Your task to perform on an android device: turn notification dots on Image 0: 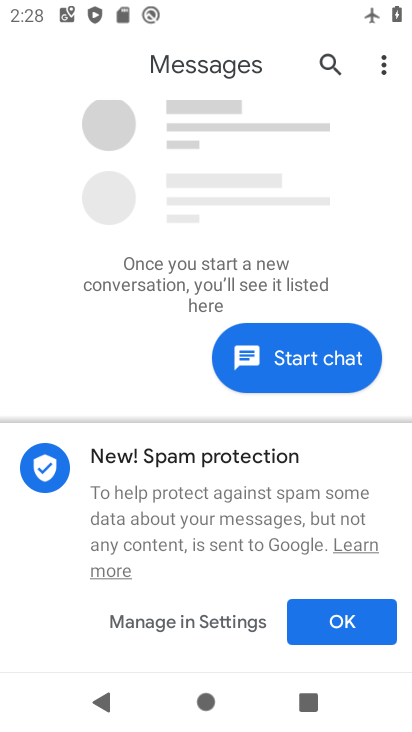
Step 0: press back button
Your task to perform on an android device: turn notification dots on Image 1: 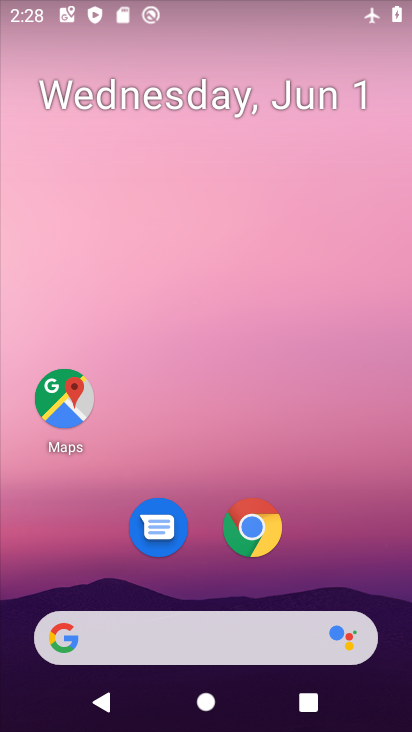
Step 1: drag from (332, 565) to (299, 277)
Your task to perform on an android device: turn notification dots on Image 2: 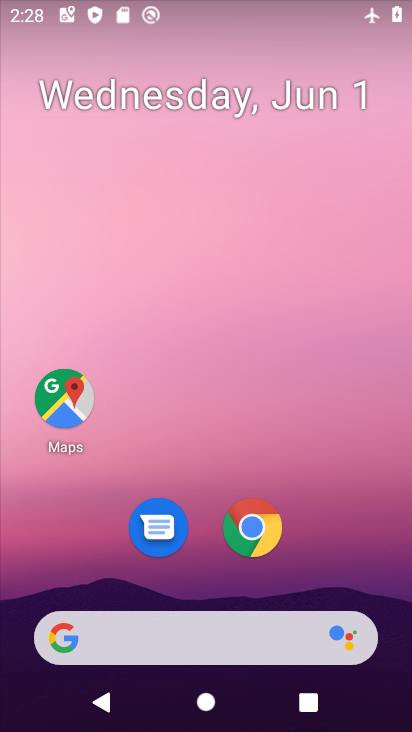
Step 2: drag from (323, 555) to (249, 124)
Your task to perform on an android device: turn notification dots on Image 3: 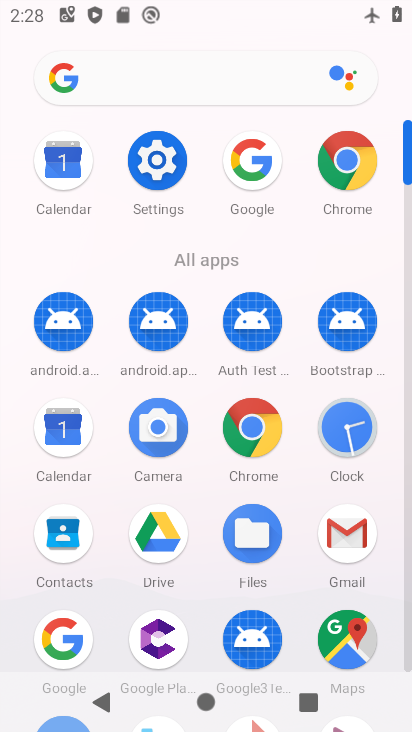
Step 3: click (155, 160)
Your task to perform on an android device: turn notification dots on Image 4: 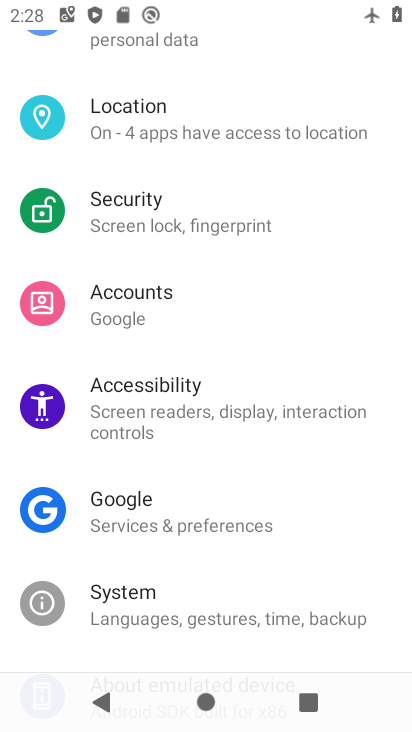
Step 4: drag from (209, 188) to (207, 281)
Your task to perform on an android device: turn notification dots on Image 5: 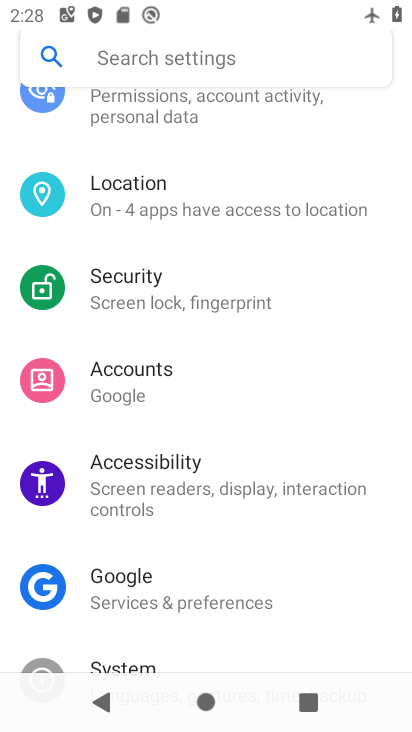
Step 5: drag from (209, 247) to (213, 330)
Your task to perform on an android device: turn notification dots on Image 6: 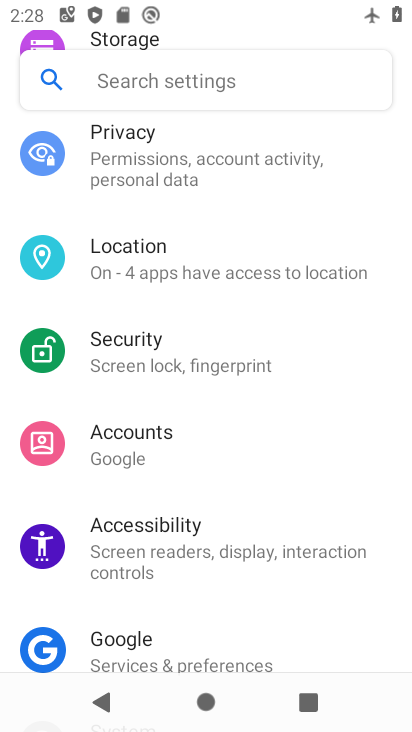
Step 6: drag from (237, 216) to (238, 350)
Your task to perform on an android device: turn notification dots on Image 7: 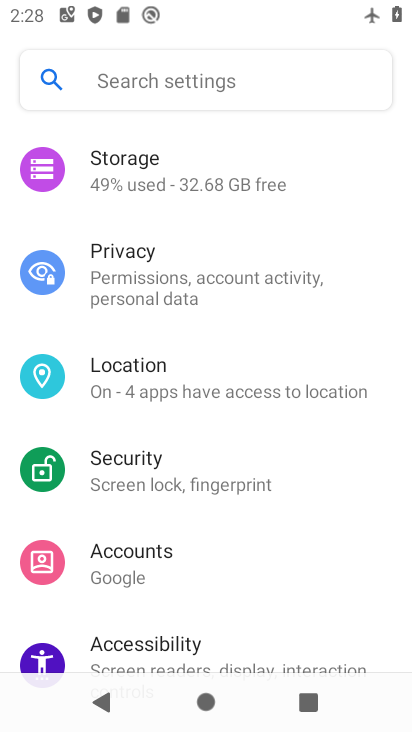
Step 7: drag from (222, 240) to (239, 380)
Your task to perform on an android device: turn notification dots on Image 8: 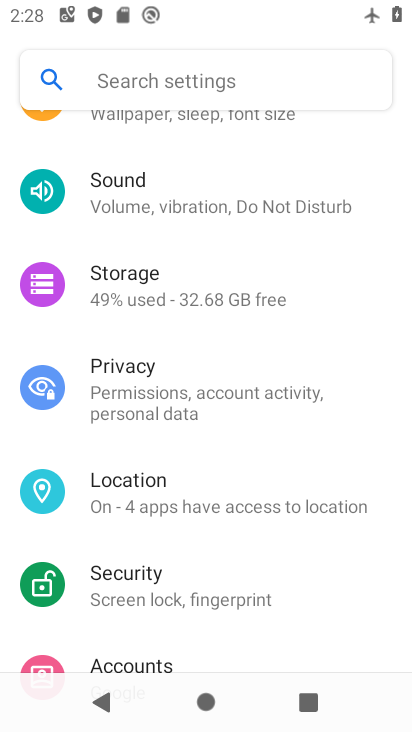
Step 8: drag from (208, 256) to (217, 384)
Your task to perform on an android device: turn notification dots on Image 9: 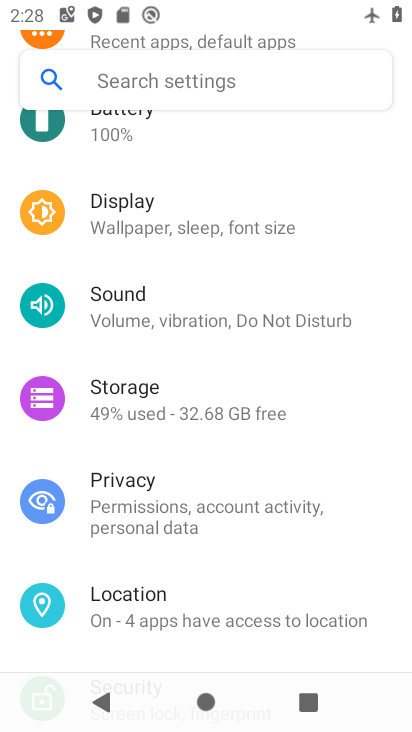
Step 9: drag from (172, 275) to (206, 390)
Your task to perform on an android device: turn notification dots on Image 10: 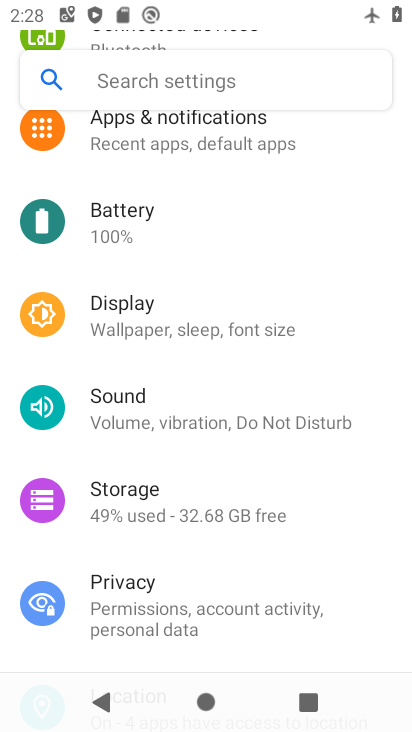
Step 10: drag from (165, 271) to (211, 417)
Your task to perform on an android device: turn notification dots on Image 11: 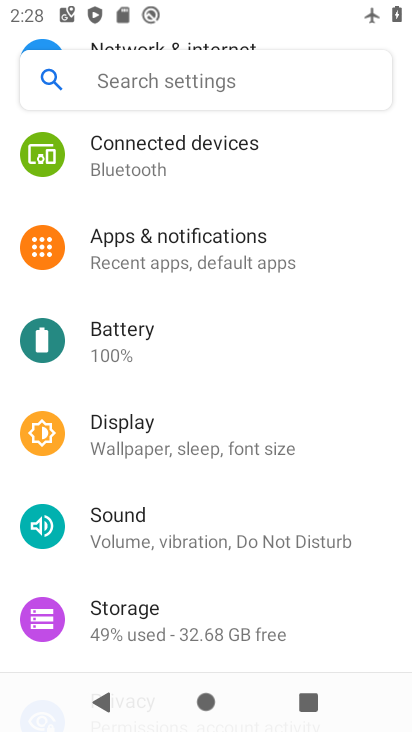
Step 11: drag from (217, 357) to (234, 473)
Your task to perform on an android device: turn notification dots on Image 12: 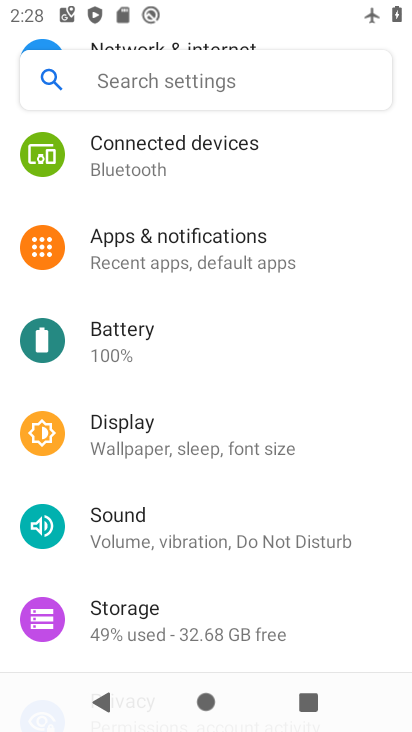
Step 12: drag from (279, 183) to (296, 393)
Your task to perform on an android device: turn notification dots on Image 13: 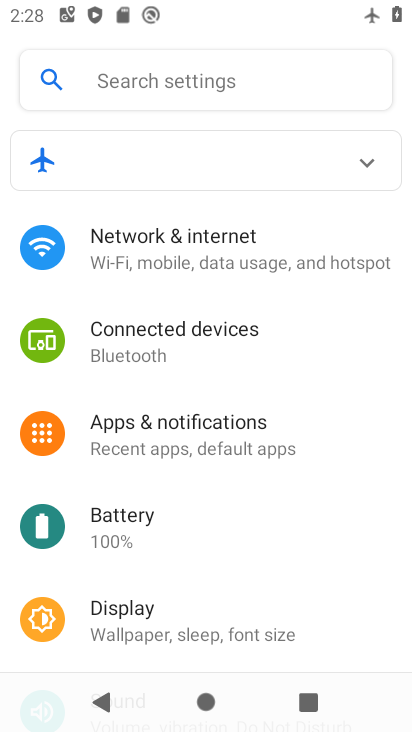
Step 13: click (209, 423)
Your task to perform on an android device: turn notification dots on Image 14: 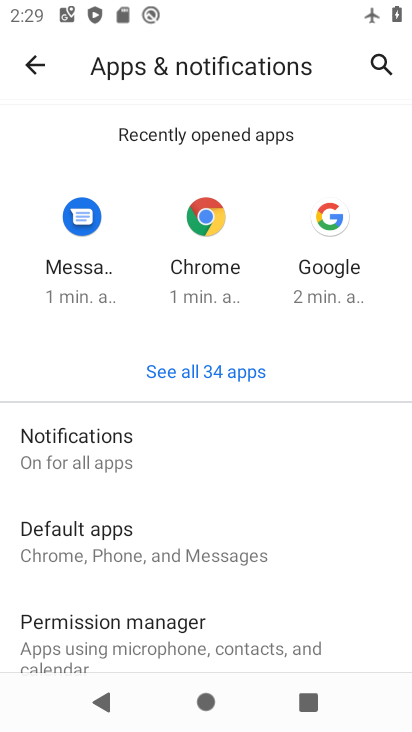
Step 14: click (111, 443)
Your task to perform on an android device: turn notification dots on Image 15: 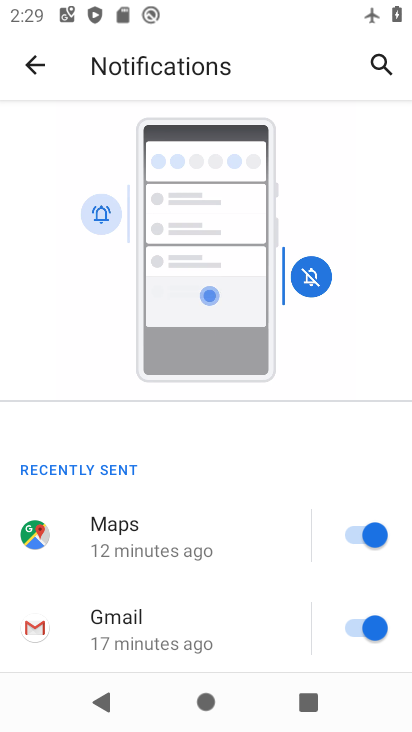
Step 15: drag from (196, 432) to (217, 341)
Your task to perform on an android device: turn notification dots on Image 16: 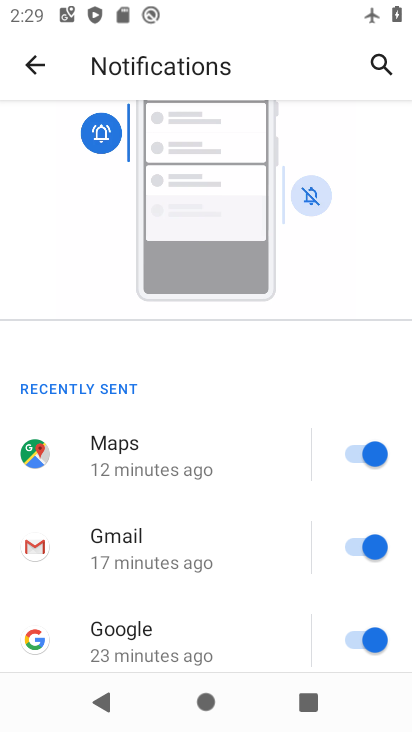
Step 16: drag from (153, 577) to (211, 440)
Your task to perform on an android device: turn notification dots on Image 17: 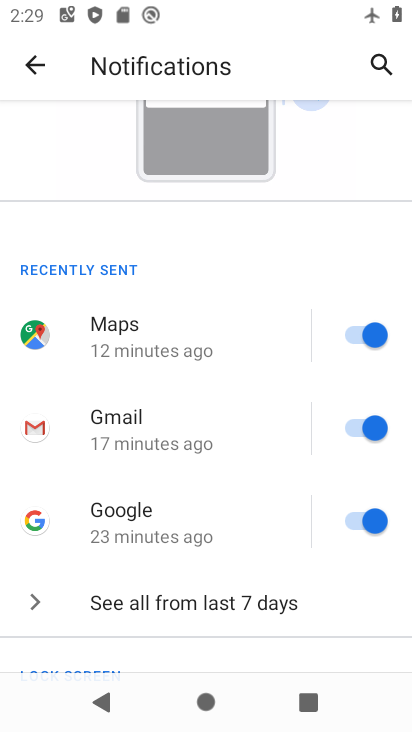
Step 17: drag from (151, 617) to (230, 376)
Your task to perform on an android device: turn notification dots on Image 18: 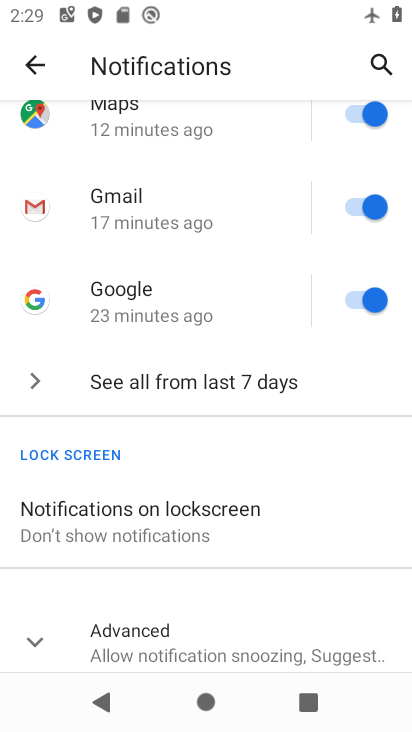
Step 18: click (178, 656)
Your task to perform on an android device: turn notification dots on Image 19: 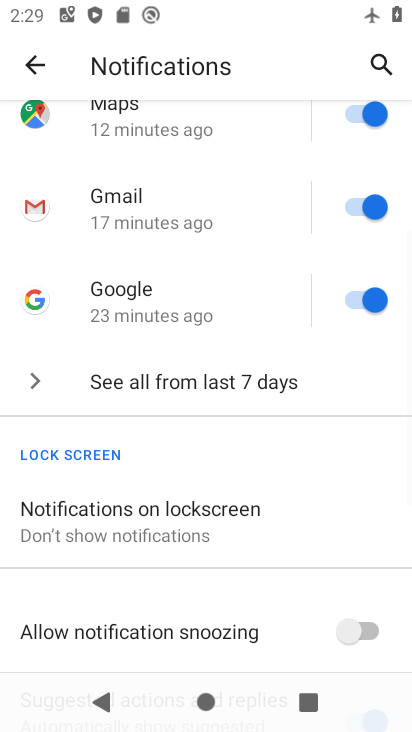
Step 19: task complete